Your task to perform on an android device: Open Amazon Image 0: 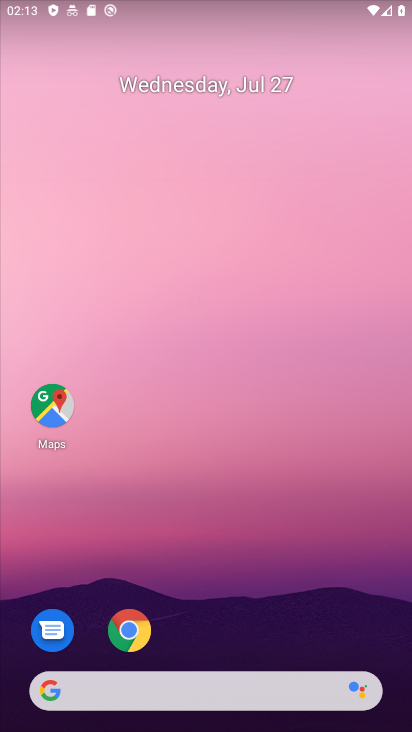
Step 0: drag from (276, 576) to (179, 76)
Your task to perform on an android device: Open Amazon Image 1: 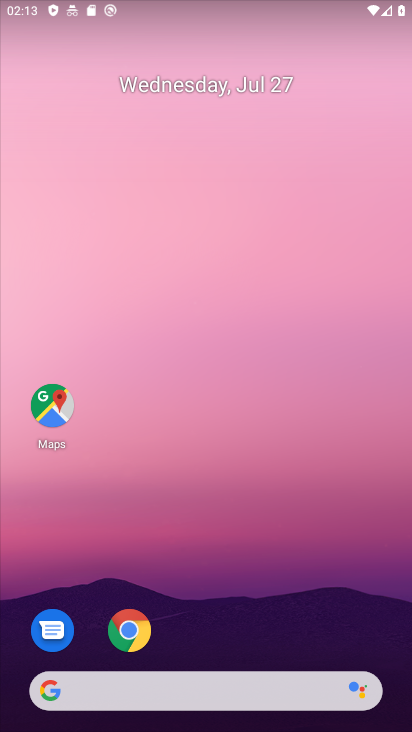
Step 1: drag from (193, 387) to (149, 205)
Your task to perform on an android device: Open Amazon Image 2: 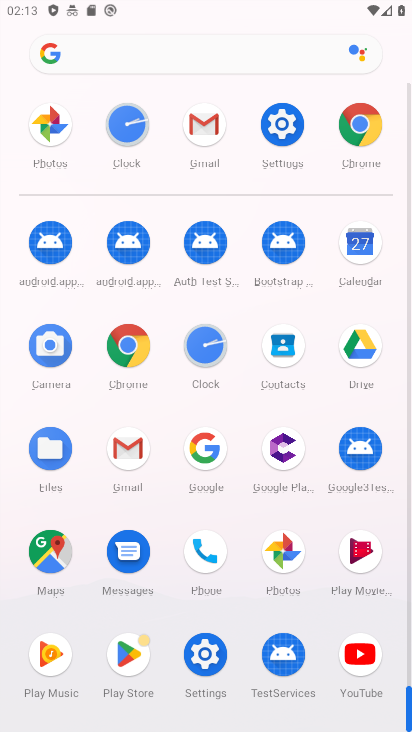
Step 2: drag from (177, 74) to (245, 156)
Your task to perform on an android device: Open Amazon Image 3: 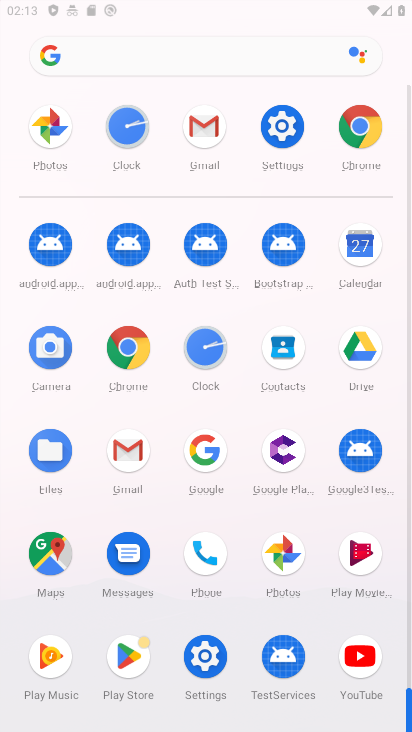
Step 3: drag from (265, 311) to (205, 147)
Your task to perform on an android device: Open Amazon Image 4: 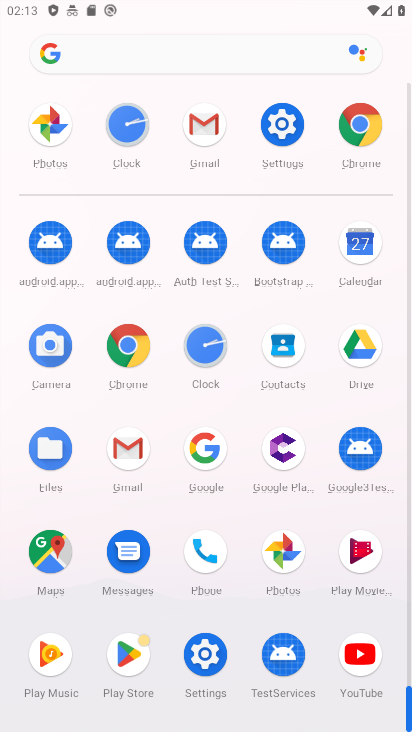
Step 4: drag from (182, 624) to (105, 316)
Your task to perform on an android device: Open Amazon Image 5: 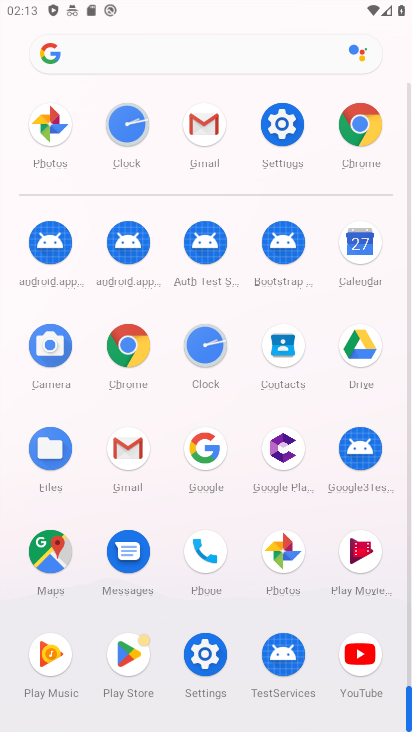
Step 5: click (286, 117)
Your task to perform on an android device: Open Amazon Image 6: 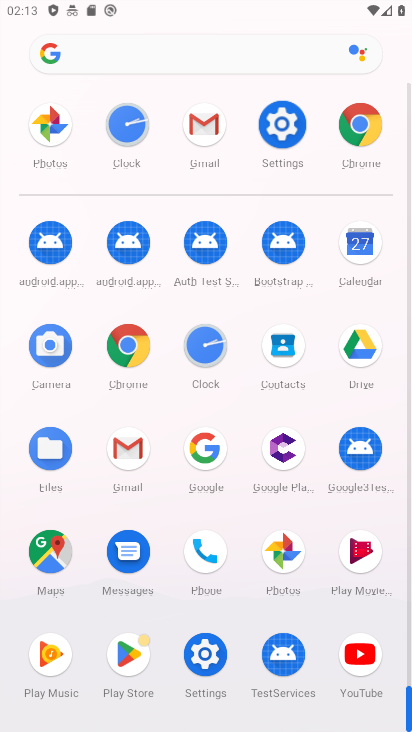
Step 6: click (286, 117)
Your task to perform on an android device: Open Amazon Image 7: 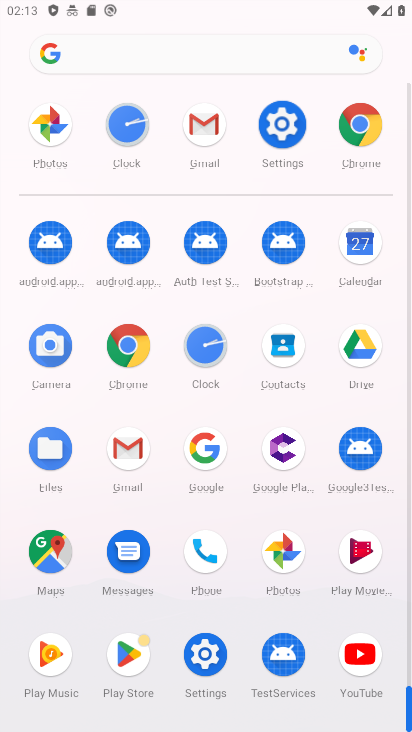
Step 7: click (286, 117)
Your task to perform on an android device: Open Amazon Image 8: 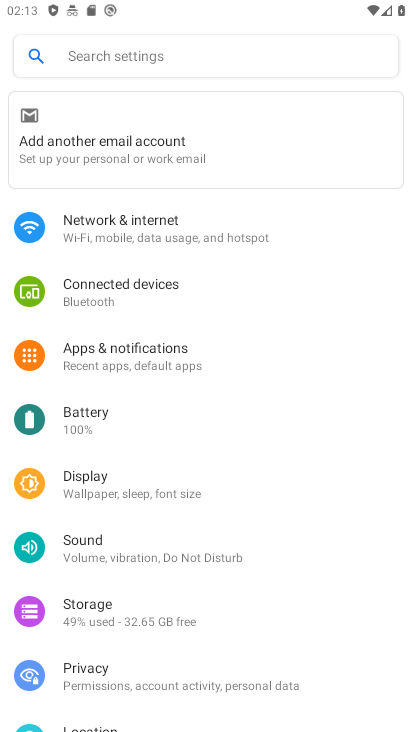
Step 8: press back button
Your task to perform on an android device: Open Amazon Image 9: 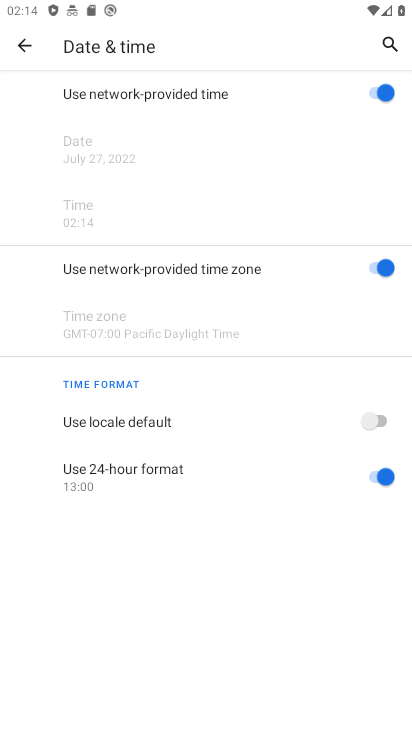
Step 9: click (21, 41)
Your task to perform on an android device: Open Amazon Image 10: 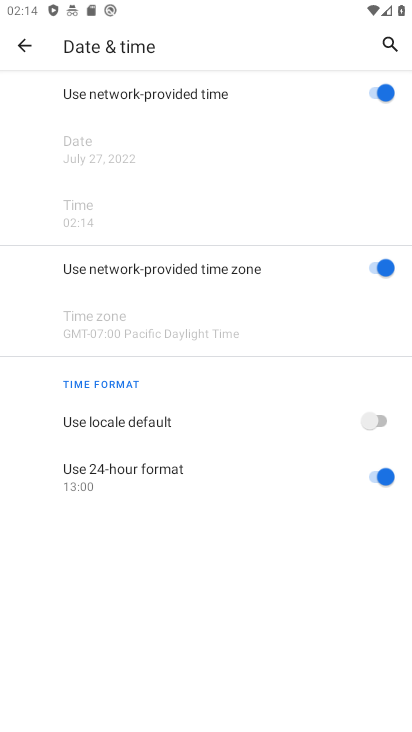
Step 10: click (19, 42)
Your task to perform on an android device: Open Amazon Image 11: 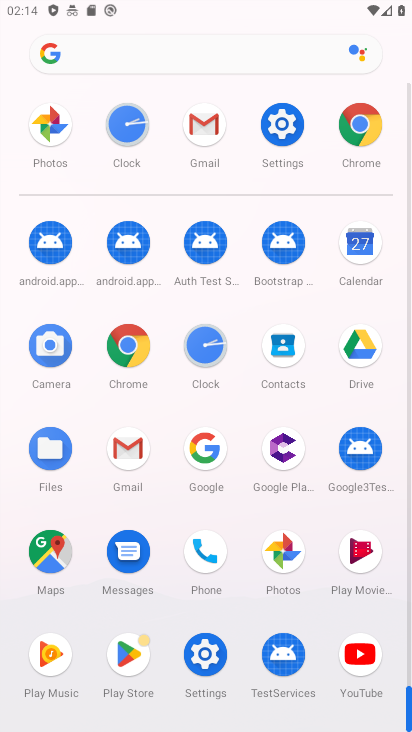
Step 11: click (362, 124)
Your task to perform on an android device: Open Amazon Image 12: 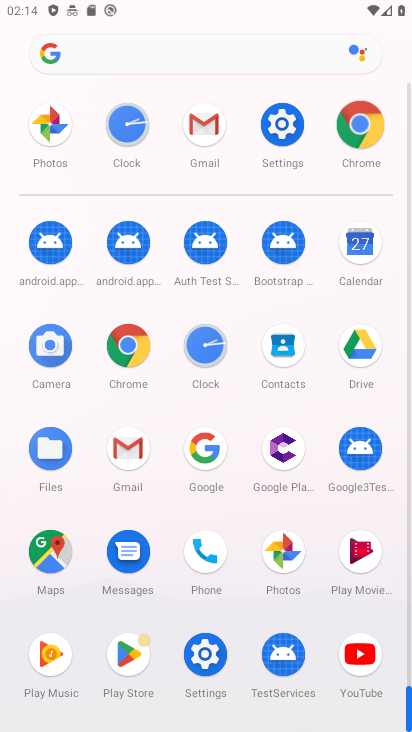
Step 12: click (363, 124)
Your task to perform on an android device: Open Amazon Image 13: 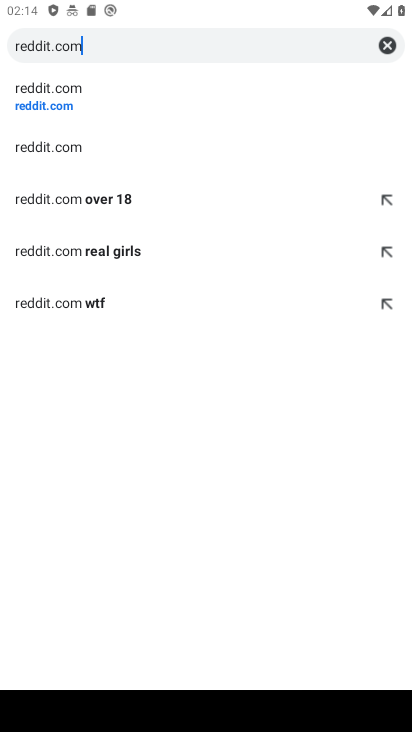
Step 13: click (389, 43)
Your task to perform on an android device: Open Amazon Image 14: 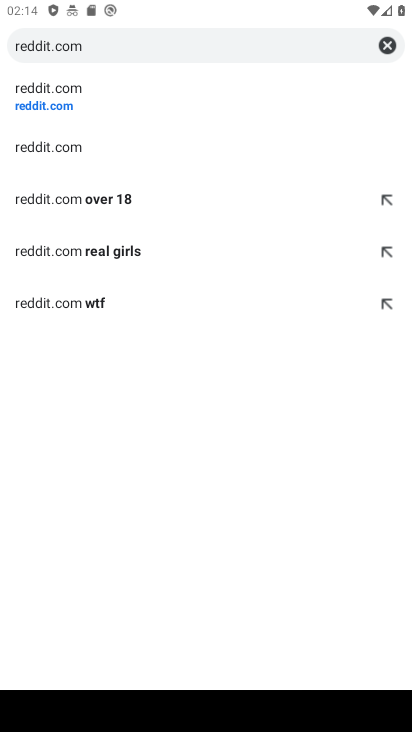
Step 14: click (389, 44)
Your task to perform on an android device: Open Amazon Image 15: 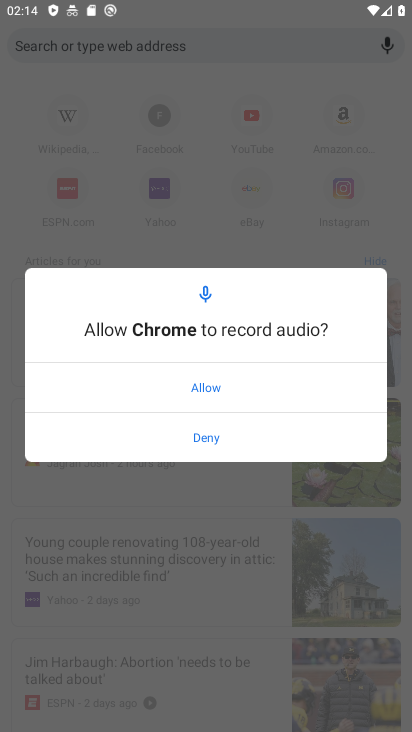
Step 15: click (216, 391)
Your task to perform on an android device: Open Amazon Image 16: 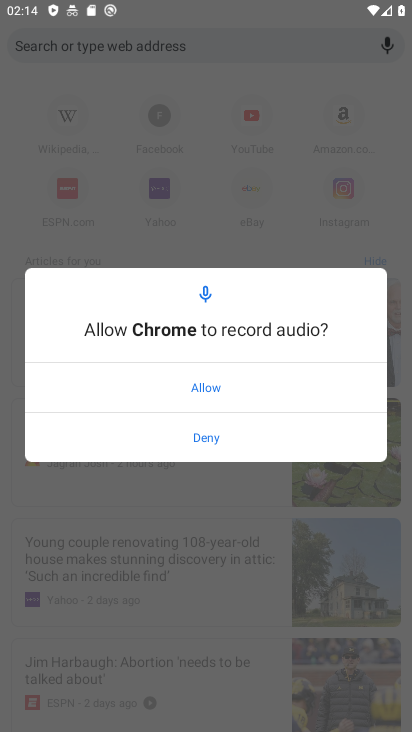
Step 16: click (216, 391)
Your task to perform on an android device: Open Amazon Image 17: 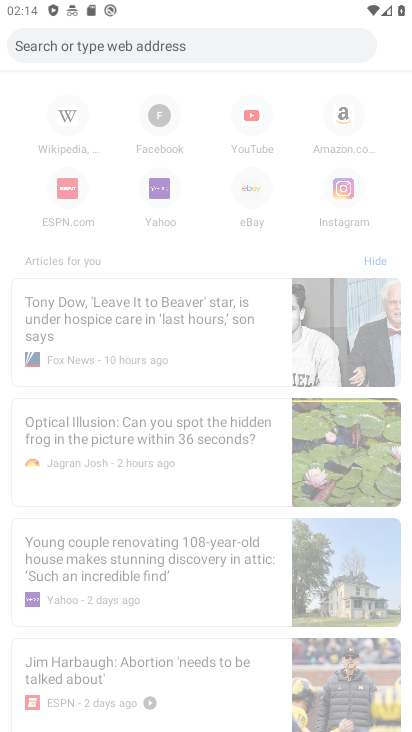
Step 17: click (248, 183)
Your task to perform on an android device: Open Amazon Image 18: 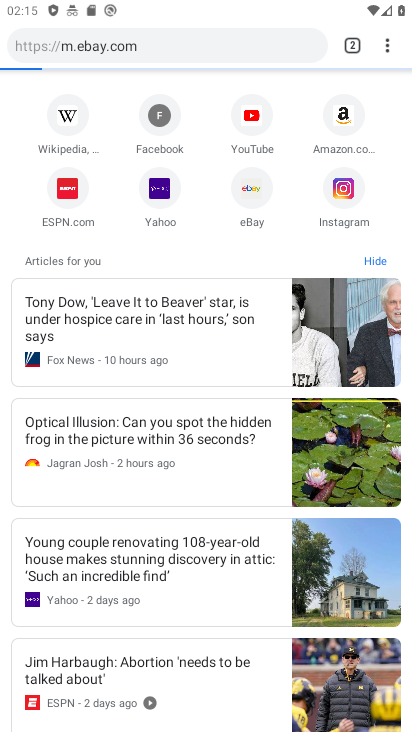
Step 18: click (336, 133)
Your task to perform on an android device: Open Amazon Image 19: 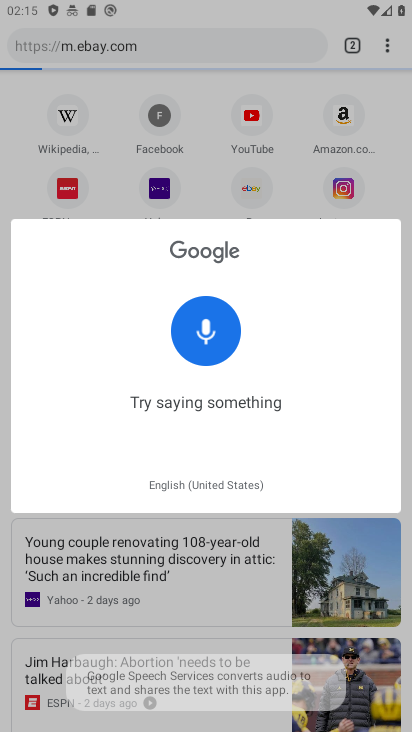
Step 19: click (336, 133)
Your task to perform on an android device: Open Amazon Image 20: 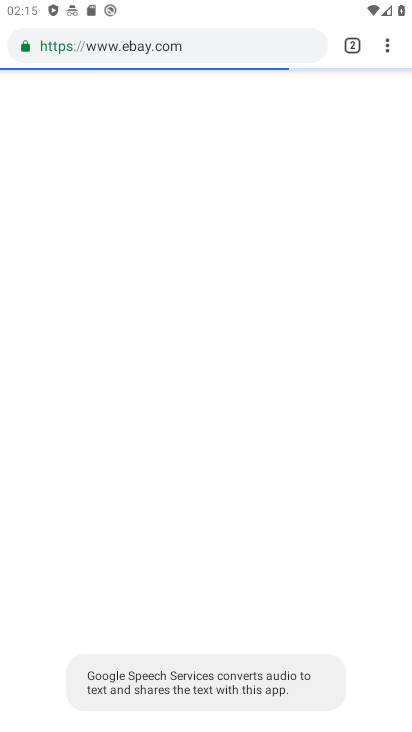
Step 20: click (339, 132)
Your task to perform on an android device: Open Amazon Image 21: 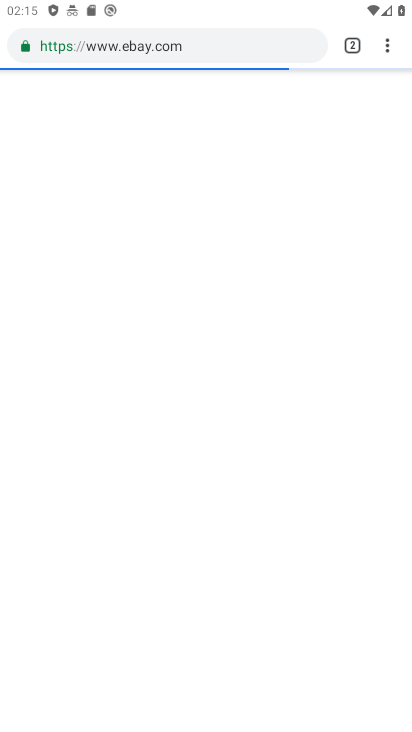
Step 21: task complete